Your task to perform on an android device: Go to ESPN.com Image 0: 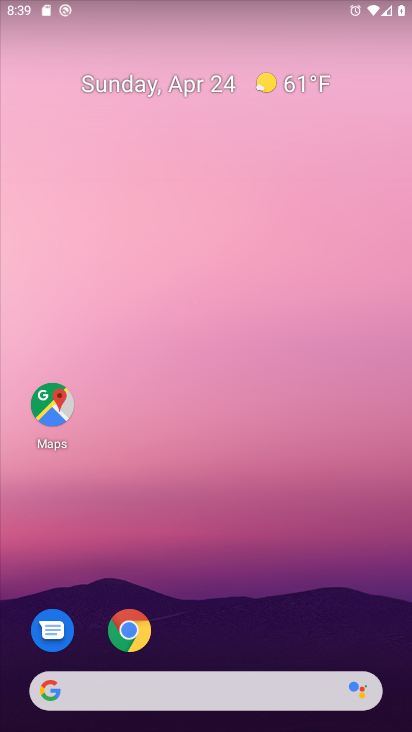
Step 0: drag from (347, 599) to (408, 127)
Your task to perform on an android device: Go to ESPN.com Image 1: 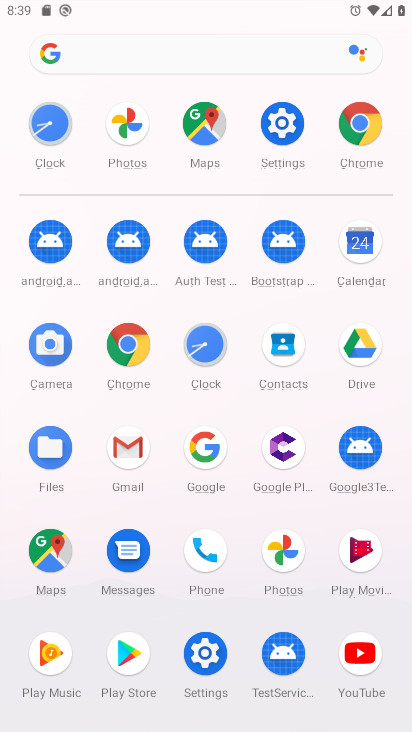
Step 1: drag from (283, 212) to (322, 86)
Your task to perform on an android device: Go to ESPN.com Image 2: 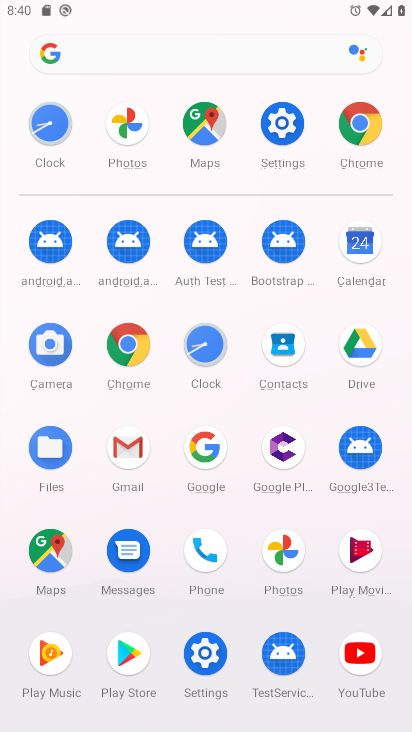
Step 2: click (365, 130)
Your task to perform on an android device: Go to ESPN.com Image 3: 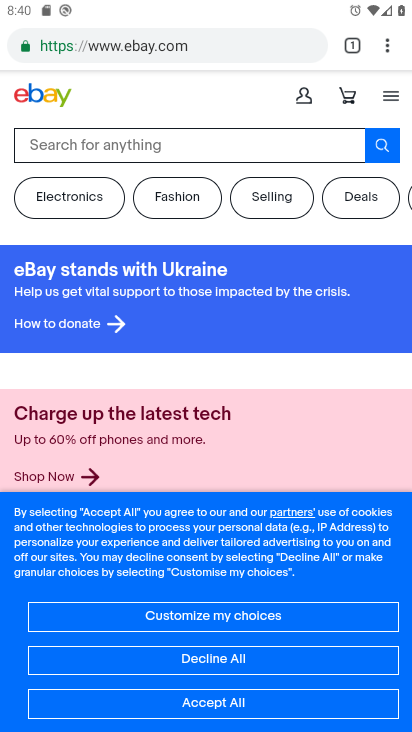
Step 3: press back button
Your task to perform on an android device: Go to ESPN.com Image 4: 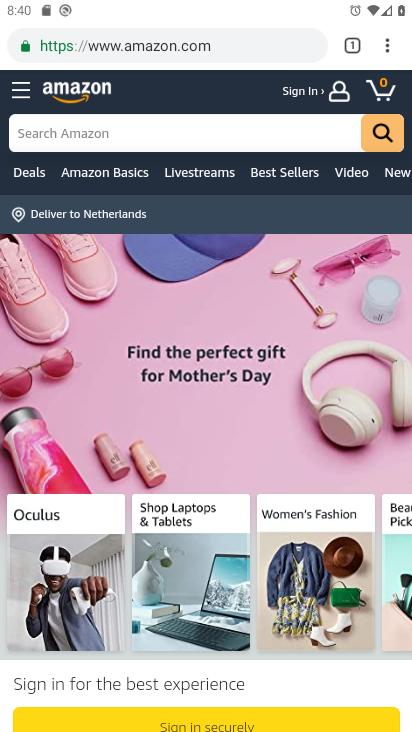
Step 4: press back button
Your task to perform on an android device: Go to ESPN.com Image 5: 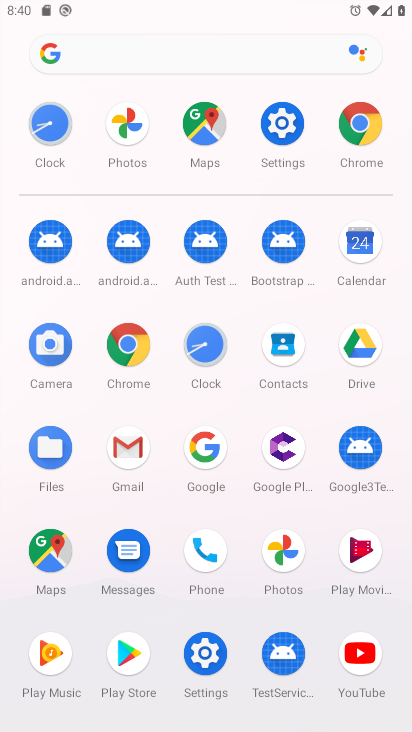
Step 5: click (373, 132)
Your task to perform on an android device: Go to ESPN.com Image 6: 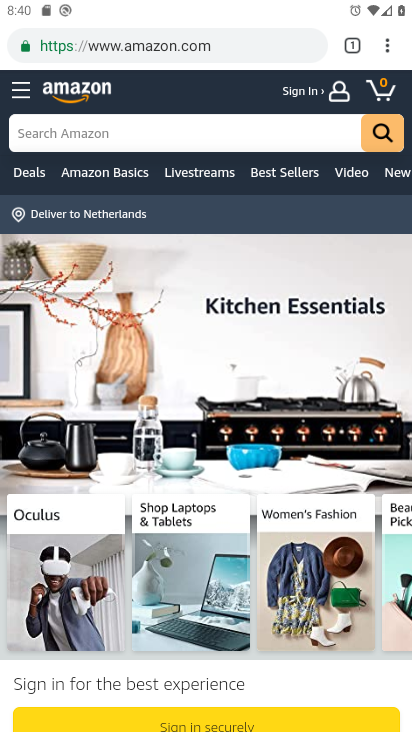
Step 6: click (207, 51)
Your task to perform on an android device: Go to ESPN.com Image 7: 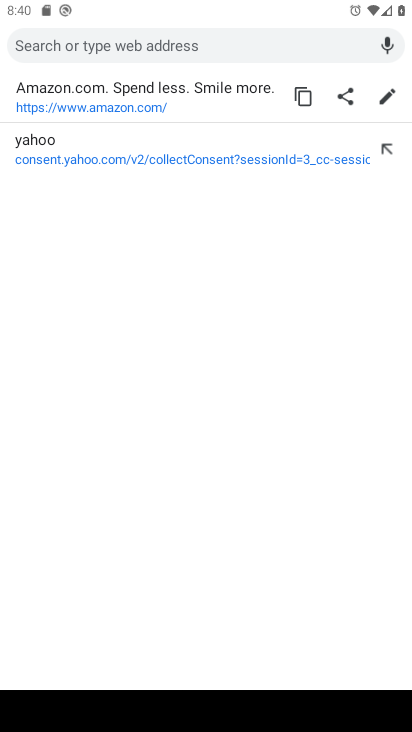
Step 7: type "espn.com"
Your task to perform on an android device: Go to ESPN.com Image 8: 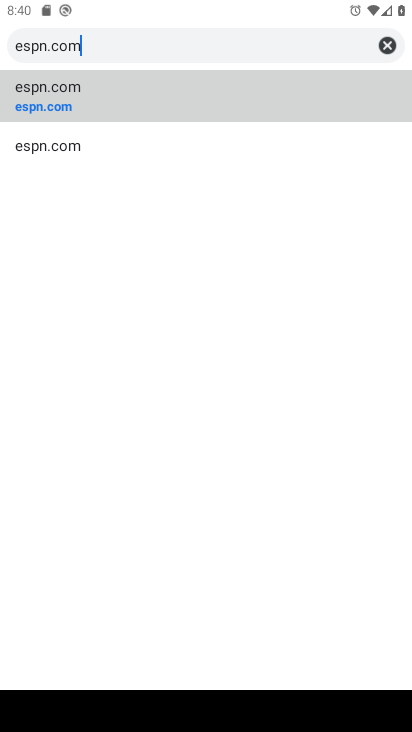
Step 8: click (107, 105)
Your task to perform on an android device: Go to ESPN.com Image 9: 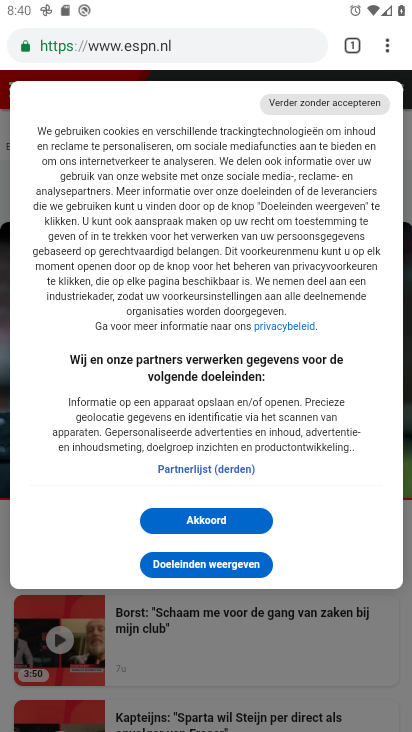
Step 9: task complete